Your task to perform on an android device: find which apps use the phone's location Image 0: 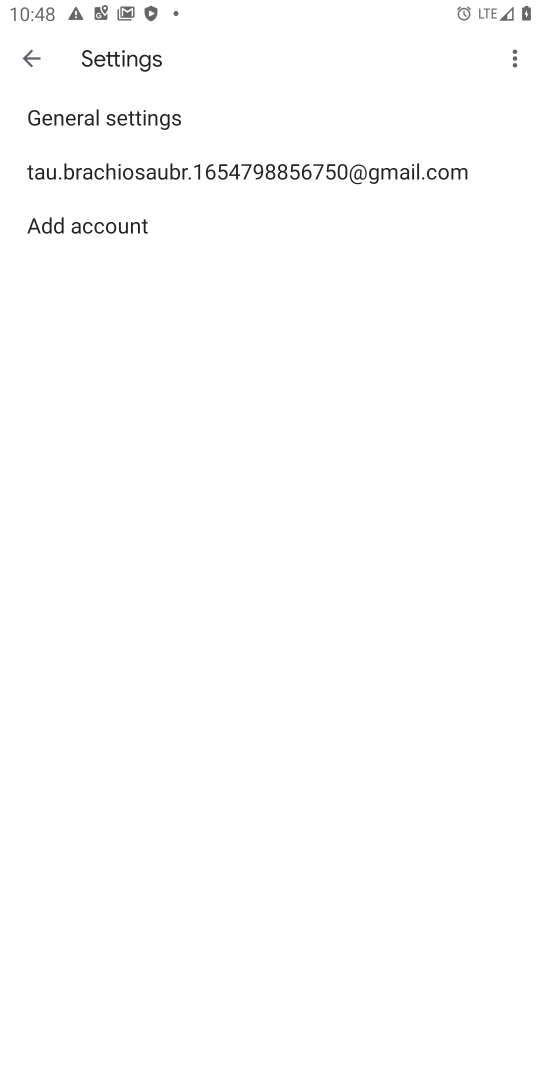
Step 0: press home button
Your task to perform on an android device: find which apps use the phone's location Image 1: 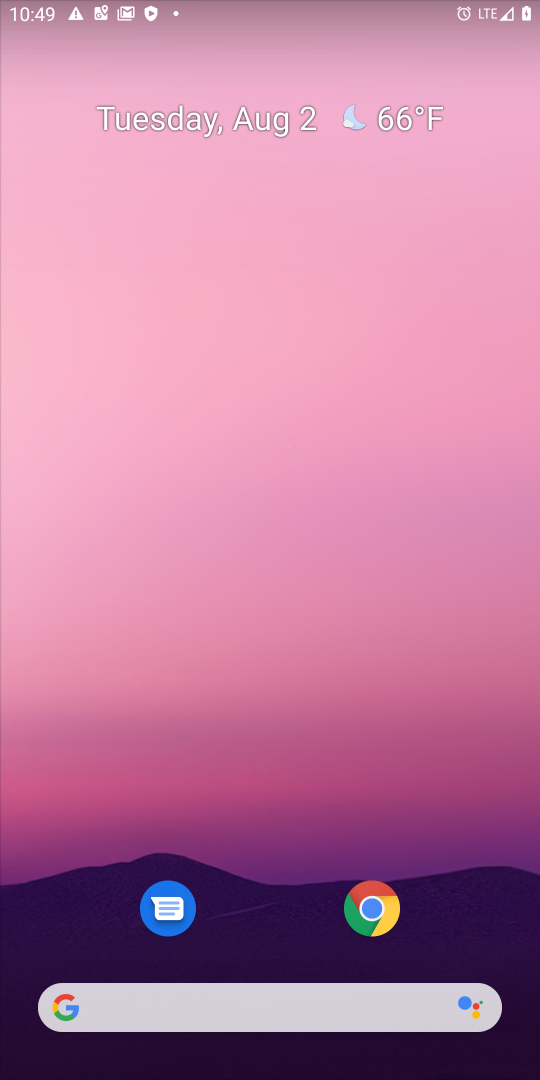
Step 1: drag from (301, 626) to (260, 233)
Your task to perform on an android device: find which apps use the phone's location Image 2: 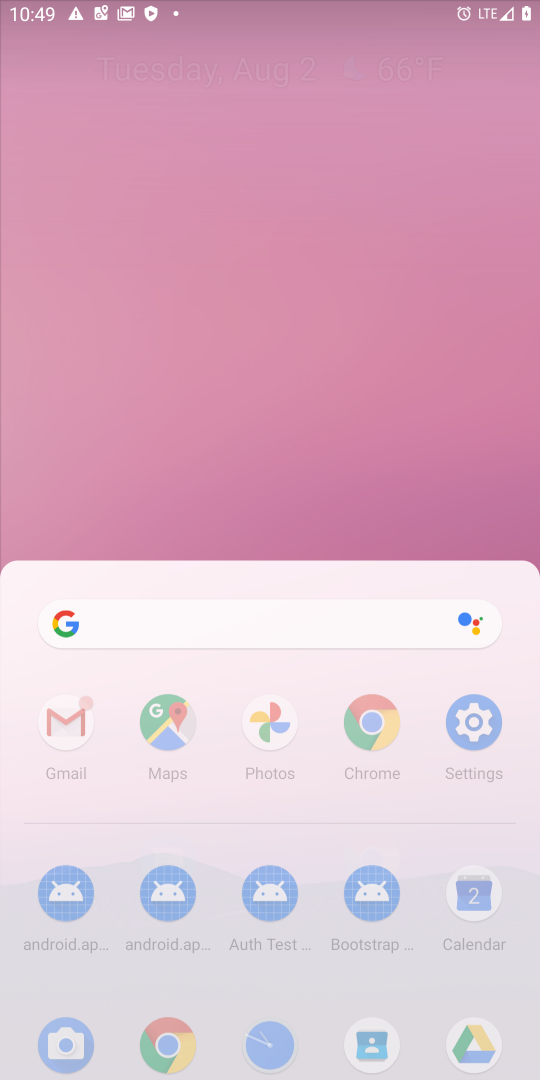
Step 2: drag from (330, 653) to (308, 70)
Your task to perform on an android device: find which apps use the phone's location Image 3: 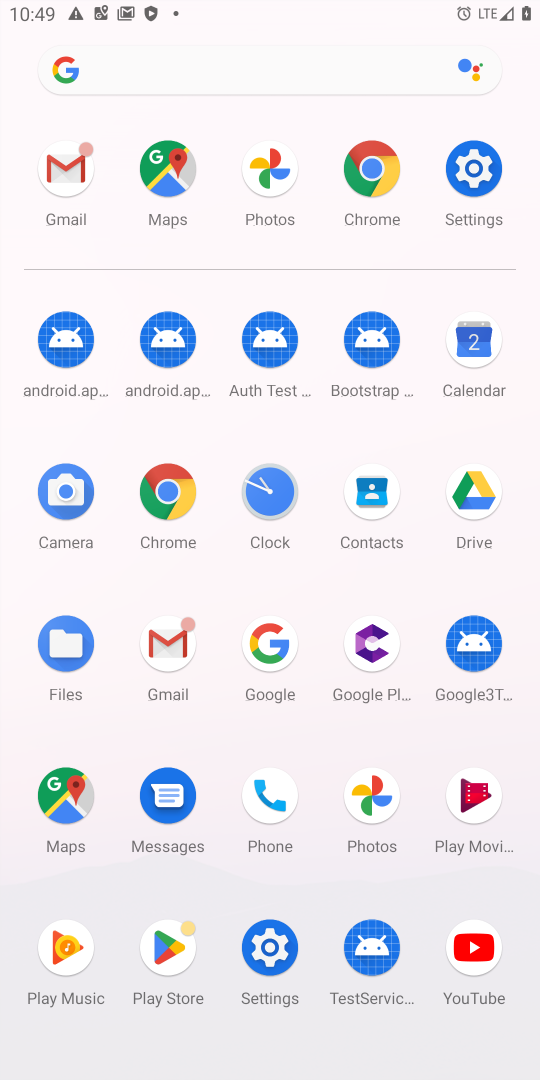
Step 3: click (270, 962)
Your task to perform on an android device: find which apps use the phone's location Image 4: 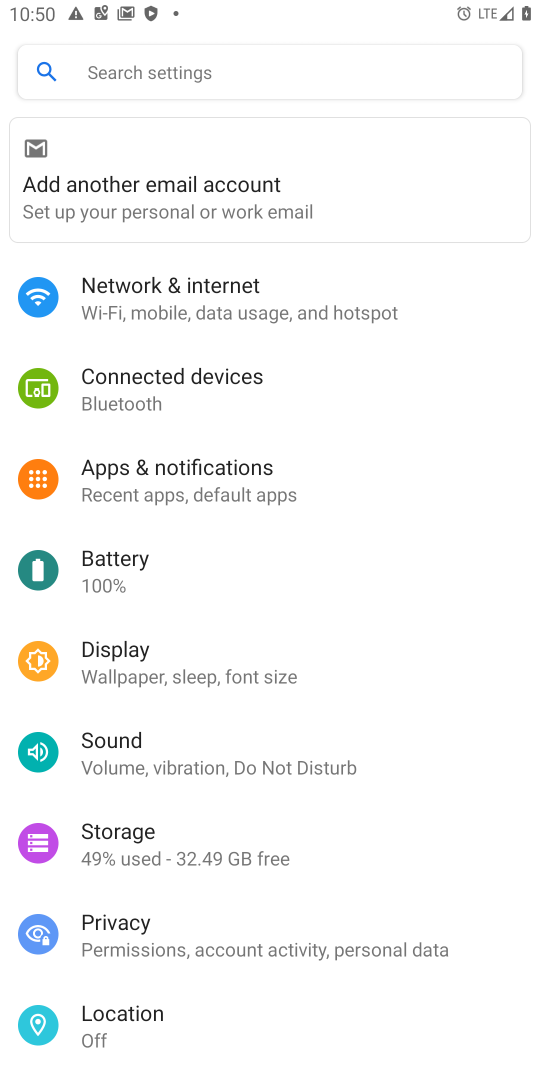
Step 4: click (206, 1031)
Your task to perform on an android device: find which apps use the phone's location Image 5: 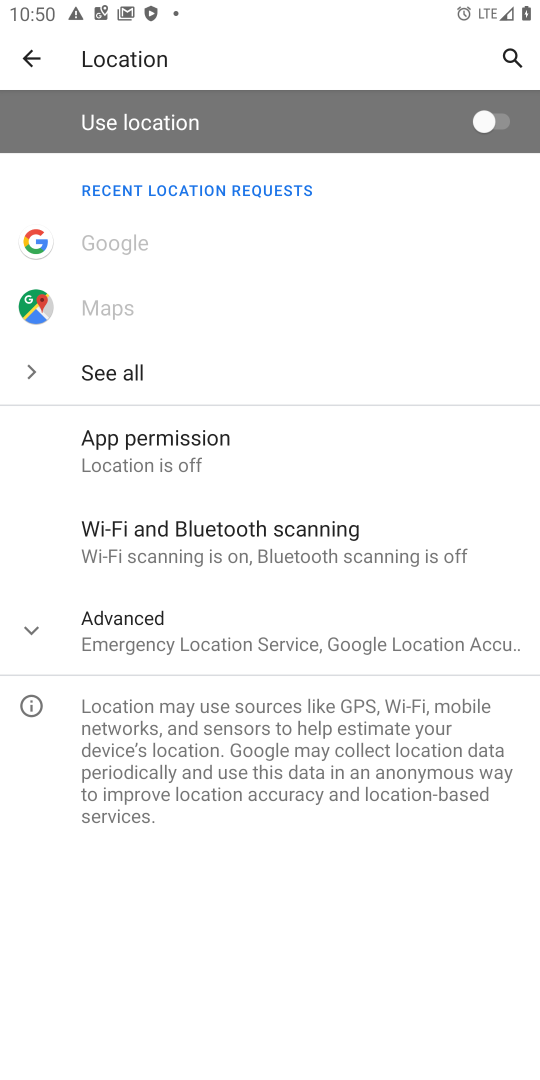
Step 5: click (222, 448)
Your task to perform on an android device: find which apps use the phone's location Image 6: 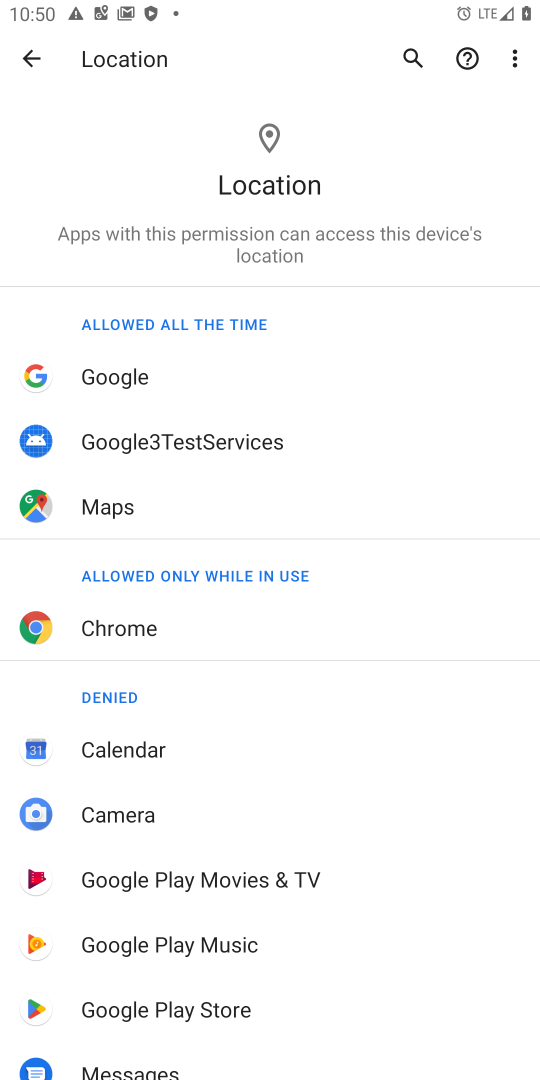
Step 6: task complete